Your task to perform on an android device: Do I have any events today? Image 0: 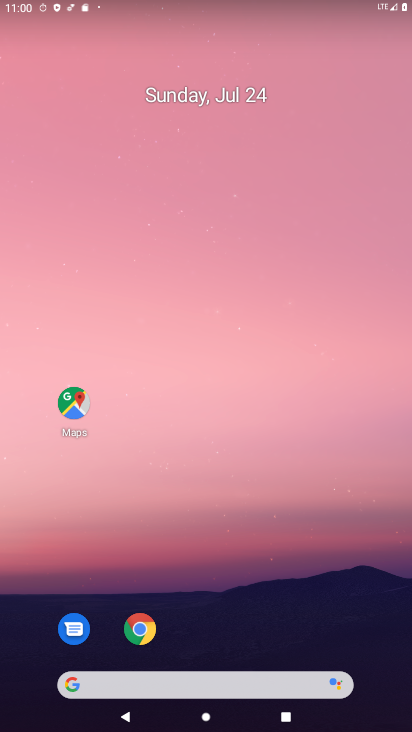
Step 0: drag from (236, 505) to (226, 182)
Your task to perform on an android device: Do I have any events today? Image 1: 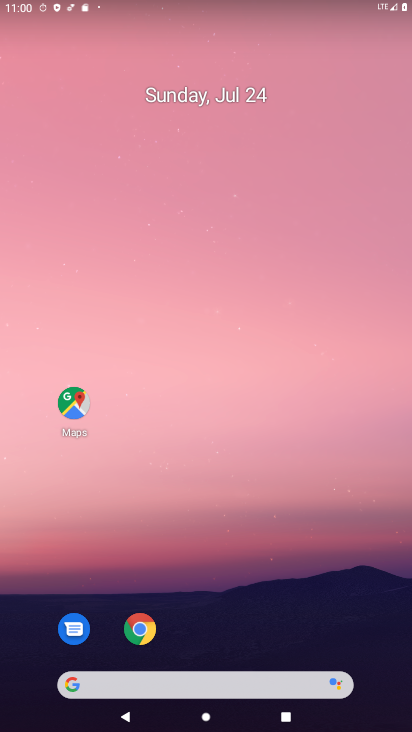
Step 1: drag from (260, 411) to (263, 113)
Your task to perform on an android device: Do I have any events today? Image 2: 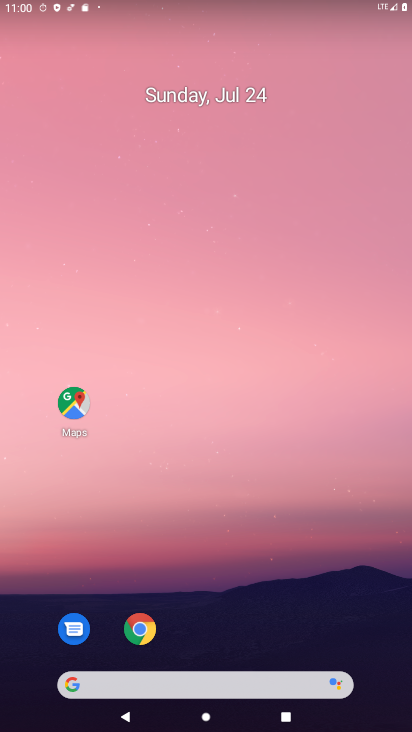
Step 2: click (161, 23)
Your task to perform on an android device: Do I have any events today? Image 3: 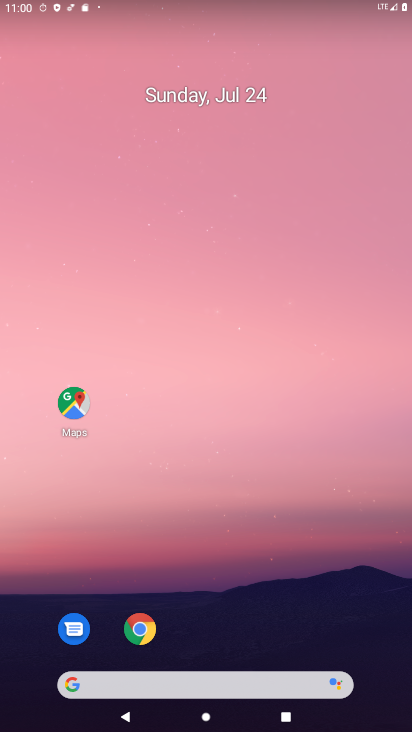
Step 3: drag from (172, 497) to (252, 40)
Your task to perform on an android device: Do I have any events today? Image 4: 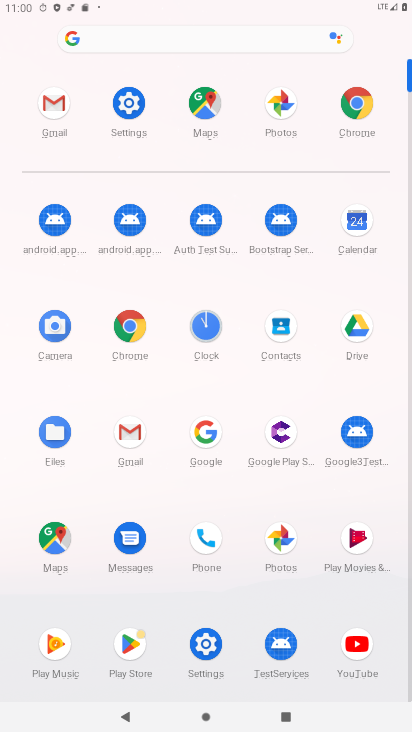
Step 4: drag from (119, 416) to (220, 89)
Your task to perform on an android device: Do I have any events today? Image 5: 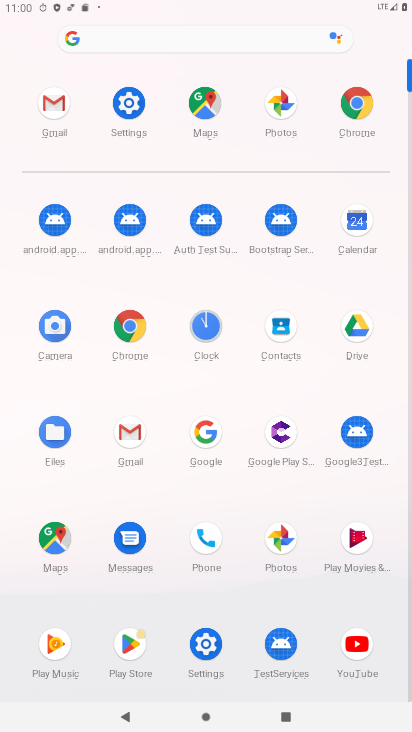
Step 5: click (369, 210)
Your task to perform on an android device: Do I have any events today? Image 6: 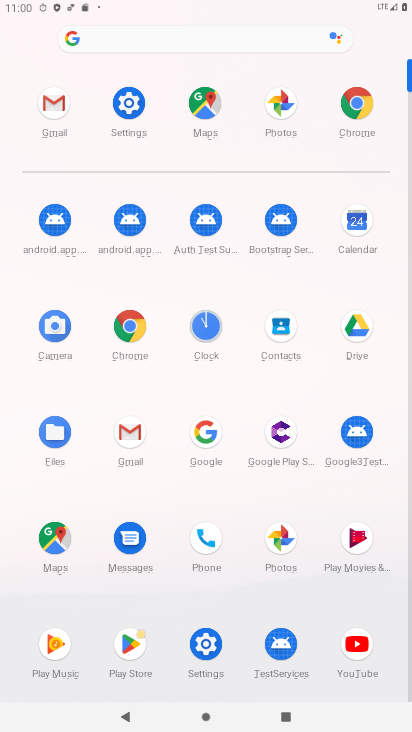
Step 6: click (357, 223)
Your task to perform on an android device: Do I have any events today? Image 7: 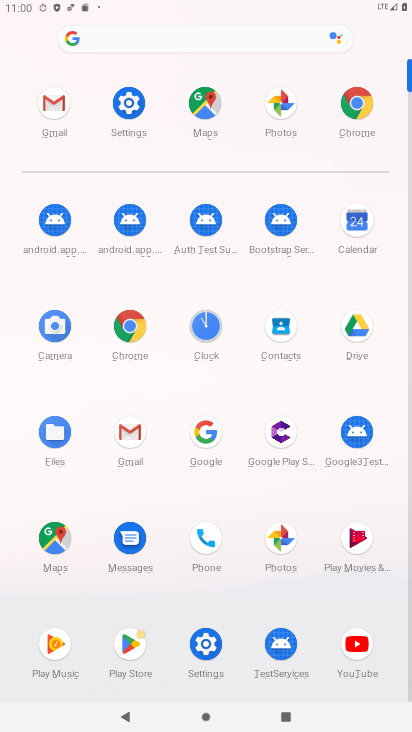
Step 7: click (358, 219)
Your task to perform on an android device: Do I have any events today? Image 8: 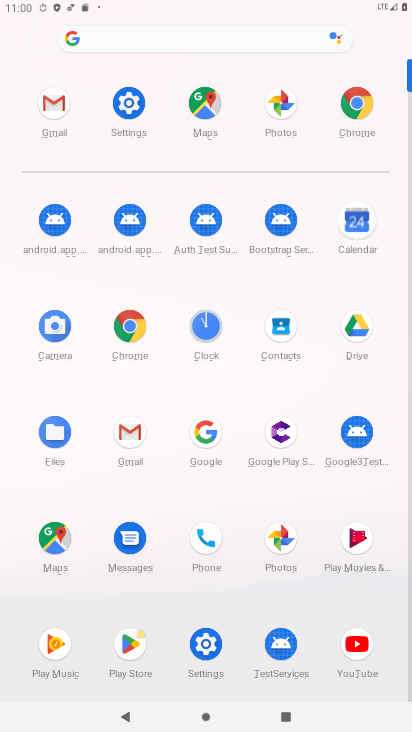
Step 8: click (356, 219)
Your task to perform on an android device: Do I have any events today? Image 9: 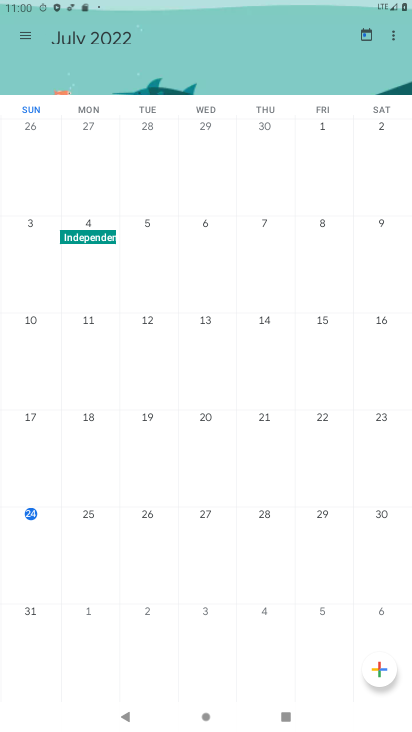
Step 9: click (89, 507)
Your task to perform on an android device: Do I have any events today? Image 10: 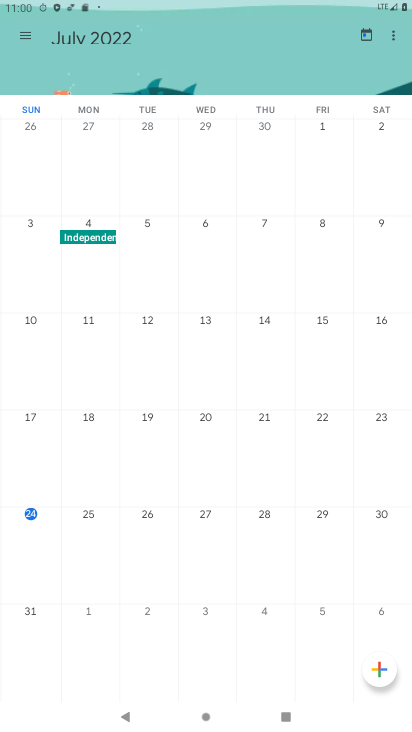
Step 10: click (89, 514)
Your task to perform on an android device: Do I have any events today? Image 11: 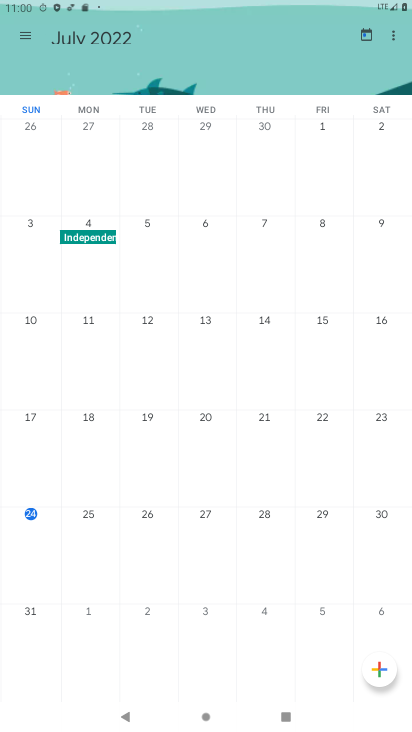
Step 11: click (91, 514)
Your task to perform on an android device: Do I have any events today? Image 12: 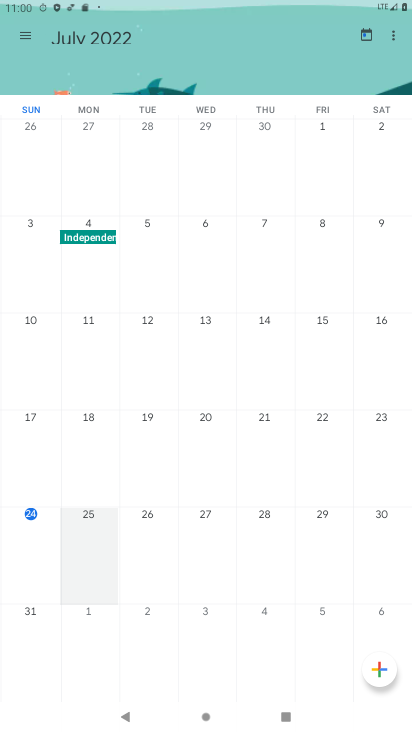
Step 12: click (99, 518)
Your task to perform on an android device: Do I have any events today? Image 13: 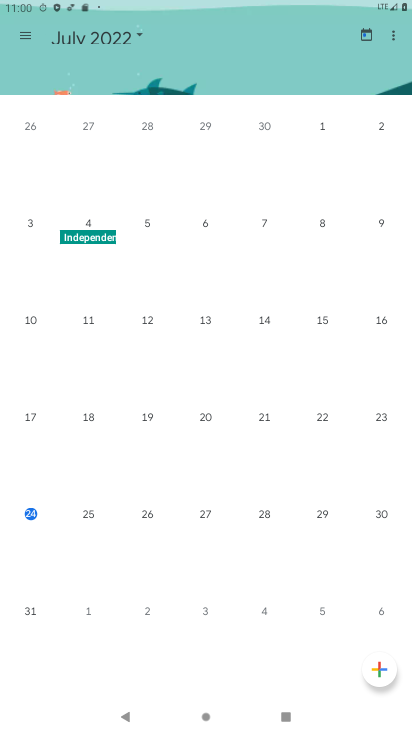
Step 13: click (98, 515)
Your task to perform on an android device: Do I have any events today? Image 14: 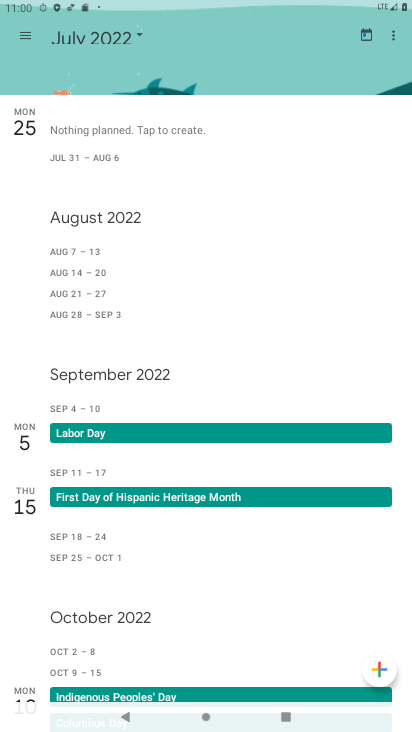
Step 14: task complete